Your task to perform on an android device: Go to wifi settings Image 0: 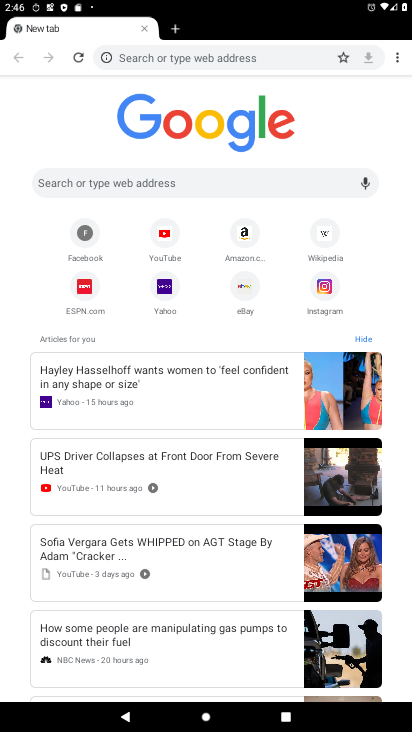
Step 0: press home button
Your task to perform on an android device: Go to wifi settings Image 1: 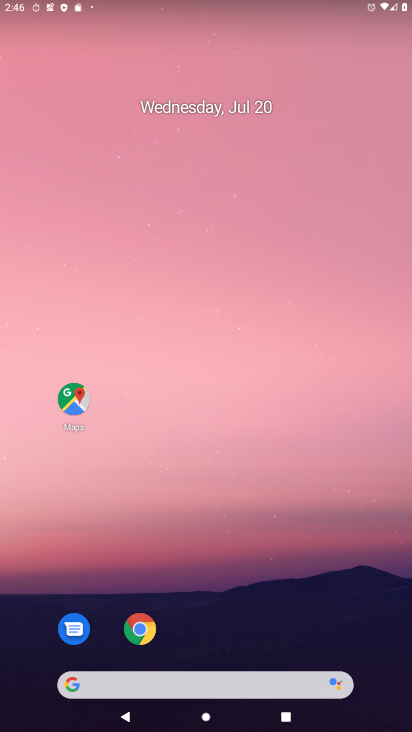
Step 1: drag from (208, 651) to (224, 3)
Your task to perform on an android device: Go to wifi settings Image 2: 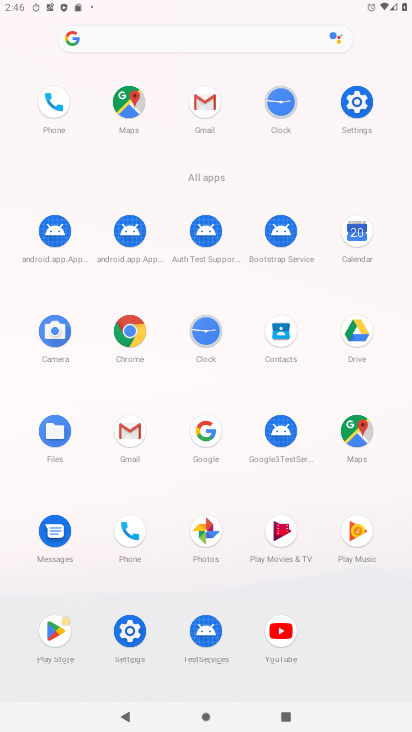
Step 2: click (353, 96)
Your task to perform on an android device: Go to wifi settings Image 3: 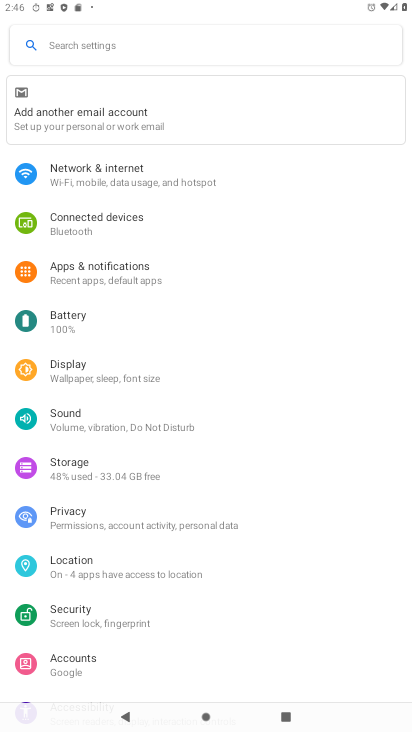
Step 3: click (158, 169)
Your task to perform on an android device: Go to wifi settings Image 4: 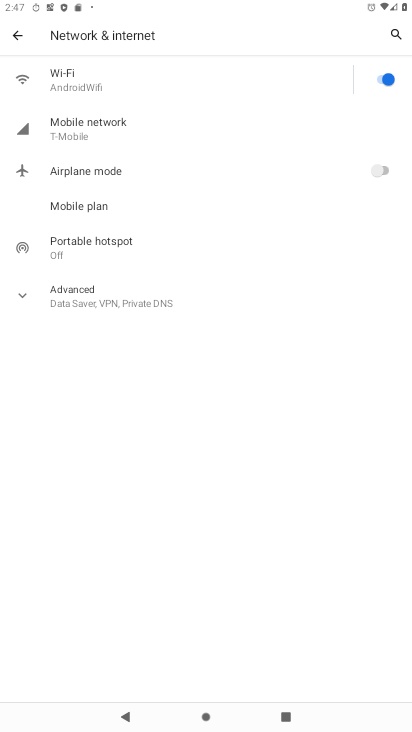
Step 4: click (155, 85)
Your task to perform on an android device: Go to wifi settings Image 5: 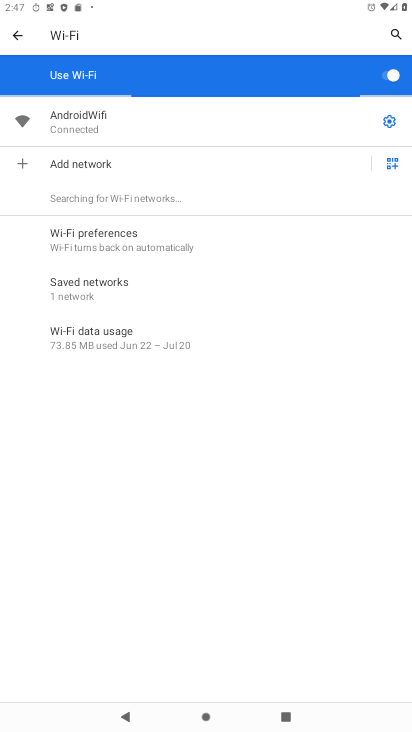
Step 5: task complete